Your task to perform on an android device: turn vacation reply on in the gmail app Image 0: 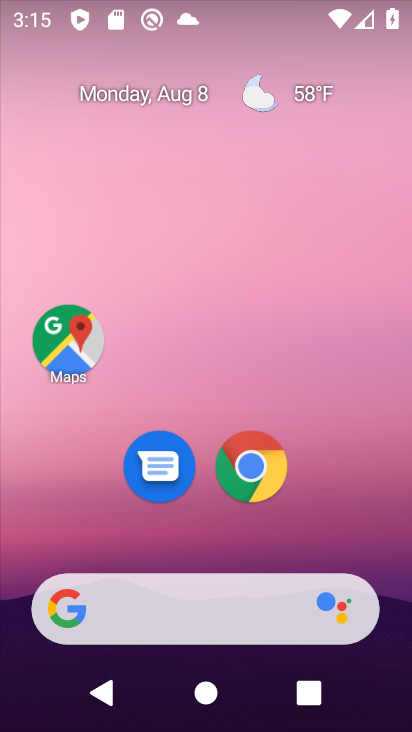
Step 0: drag from (203, 621) to (195, 212)
Your task to perform on an android device: turn vacation reply on in the gmail app Image 1: 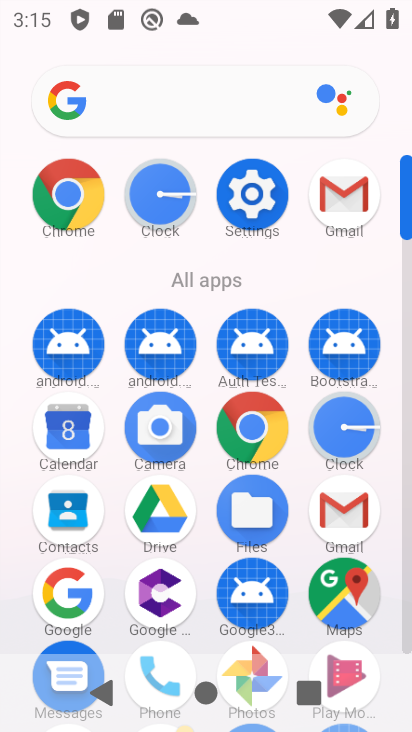
Step 1: click (343, 503)
Your task to perform on an android device: turn vacation reply on in the gmail app Image 2: 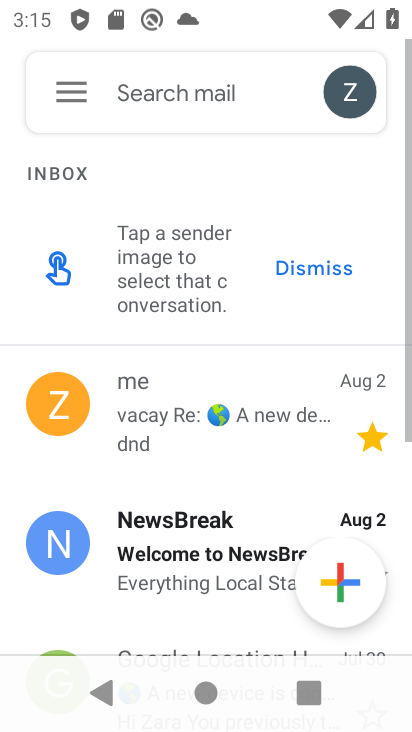
Step 2: click (88, 82)
Your task to perform on an android device: turn vacation reply on in the gmail app Image 3: 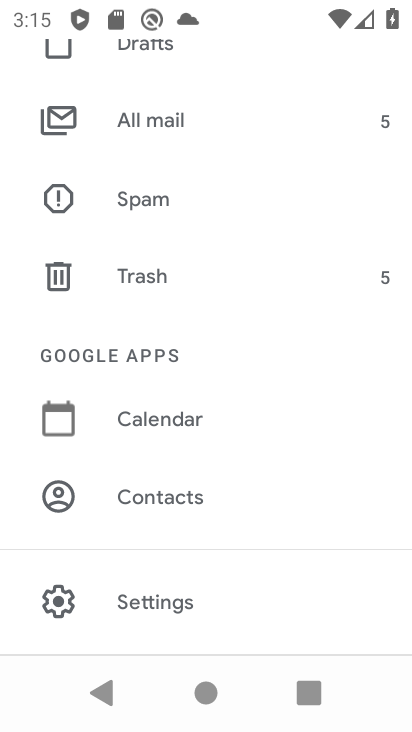
Step 3: click (138, 592)
Your task to perform on an android device: turn vacation reply on in the gmail app Image 4: 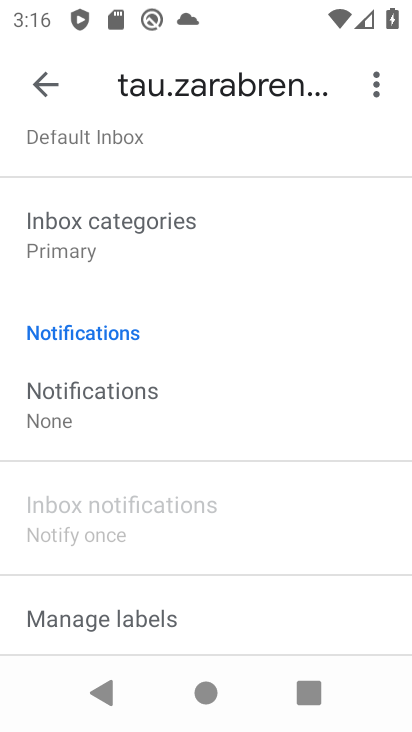
Step 4: drag from (187, 629) to (257, 187)
Your task to perform on an android device: turn vacation reply on in the gmail app Image 5: 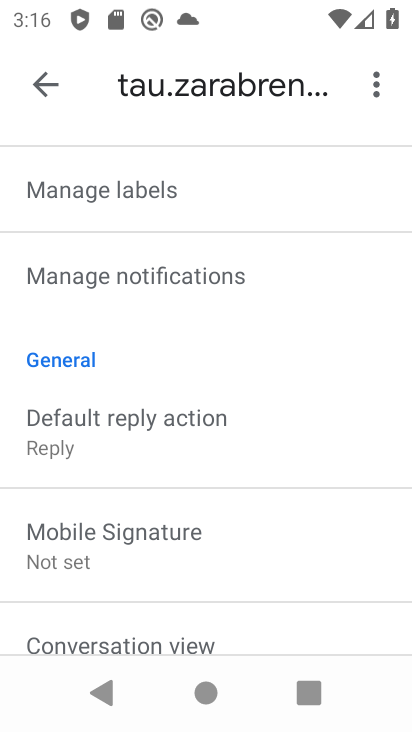
Step 5: drag from (146, 586) to (207, 198)
Your task to perform on an android device: turn vacation reply on in the gmail app Image 6: 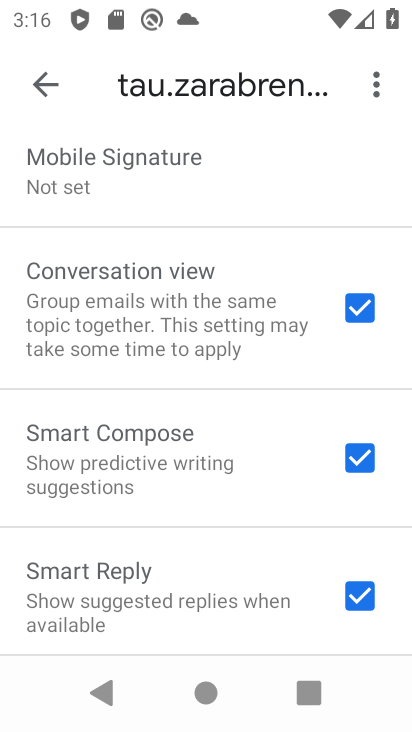
Step 6: drag from (171, 587) to (206, 178)
Your task to perform on an android device: turn vacation reply on in the gmail app Image 7: 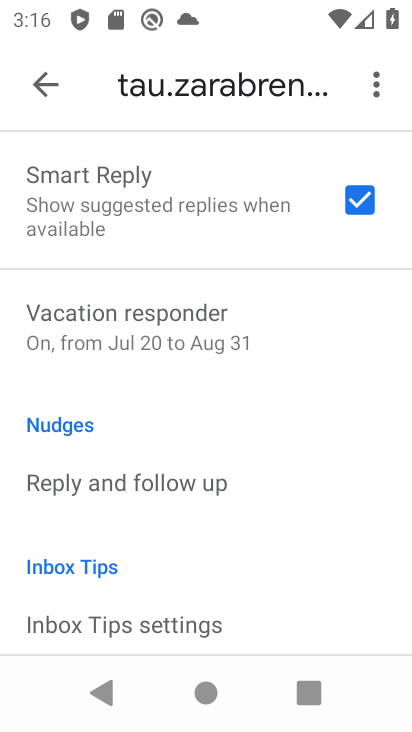
Step 7: click (161, 328)
Your task to perform on an android device: turn vacation reply on in the gmail app Image 8: 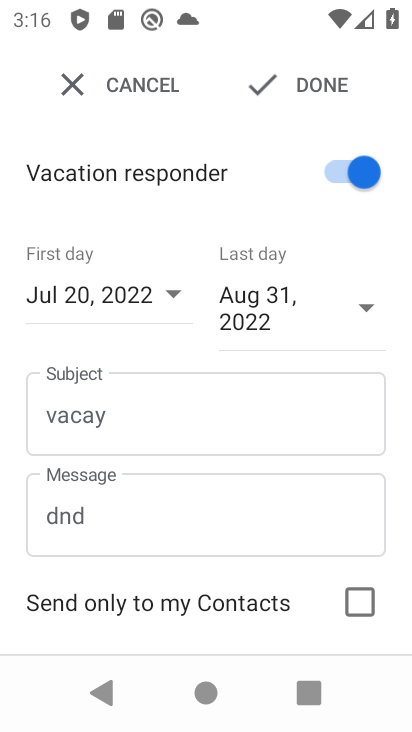
Step 8: task complete